Your task to perform on an android device: turn off improve location accuracy Image 0: 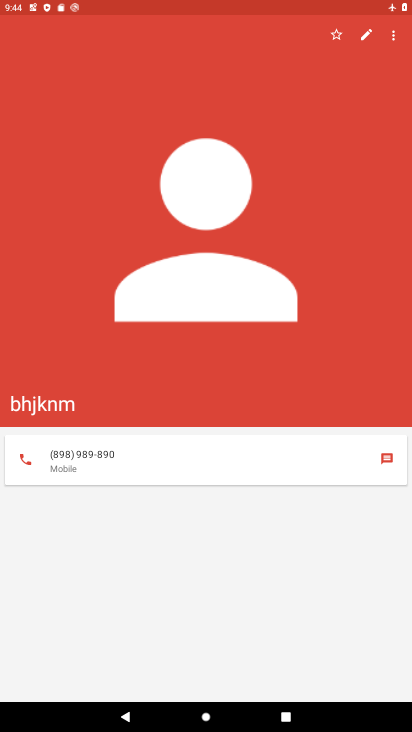
Step 0: press home button
Your task to perform on an android device: turn off improve location accuracy Image 1: 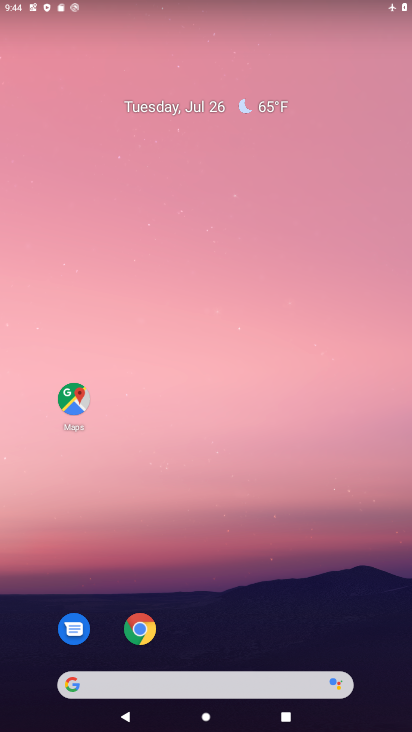
Step 1: drag from (290, 628) to (218, 91)
Your task to perform on an android device: turn off improve location accuracy Image 2: 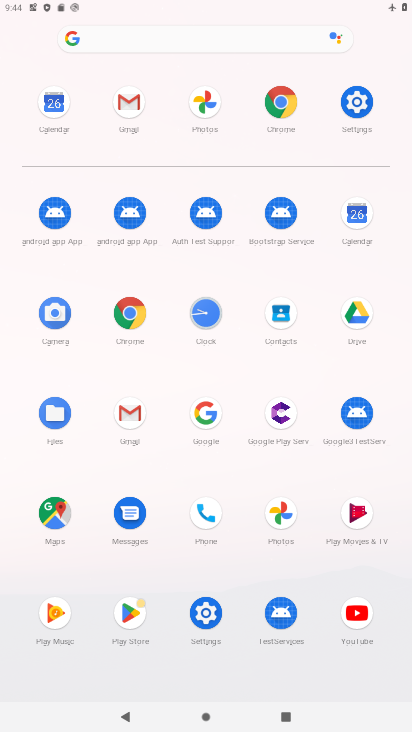
Step 2: click (347, 104)
Your task to perform on an android device: turn off improve location accuracy Image 3: 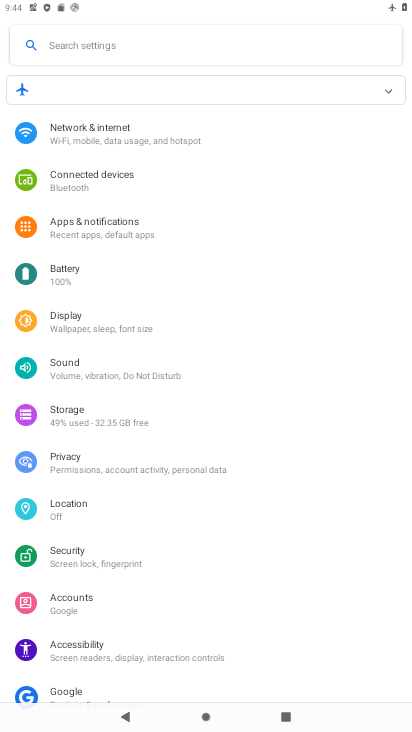
Step 3: click (77, 499)
Your task to perform on an android device: turn off improve location accuracy Image 4: 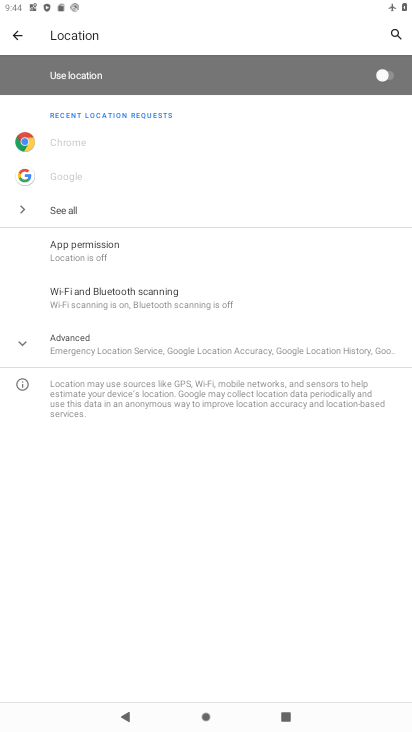
Step 4: task complete